Your task to perform on an android device: toggle sleep mode Image 0: 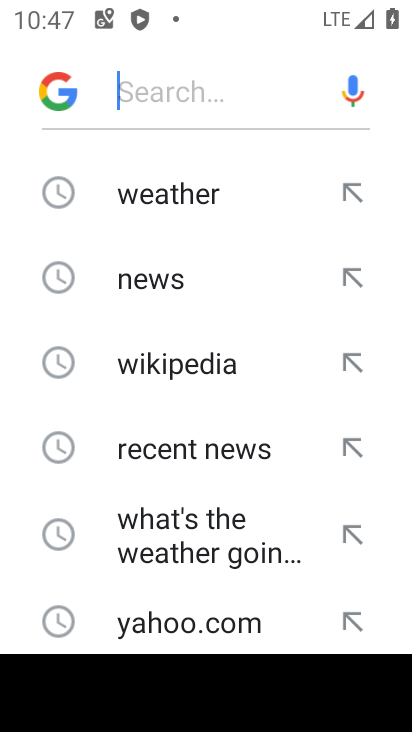
Step 0: press home button
Your task to perform on an android device: toggle sleep mode Image 1: 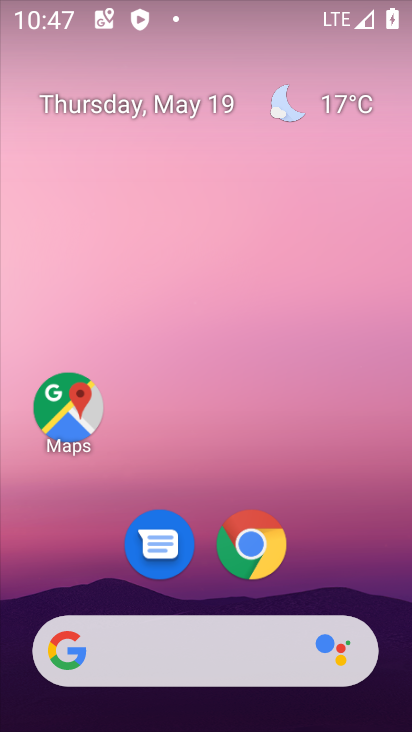
Step 1: drag from (133, 712) to (255, 109)
Your task to perform on an android device: toggle sleep mode Image 2: 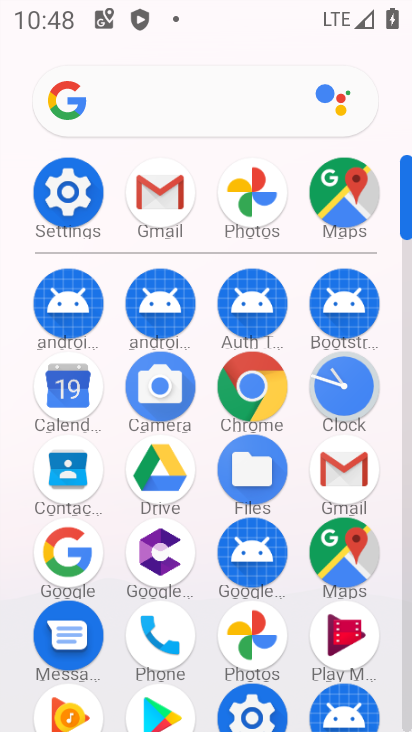
Step 2: click (83, 179)
Your task to perform on an android device: toggle sleep mode Image 3: 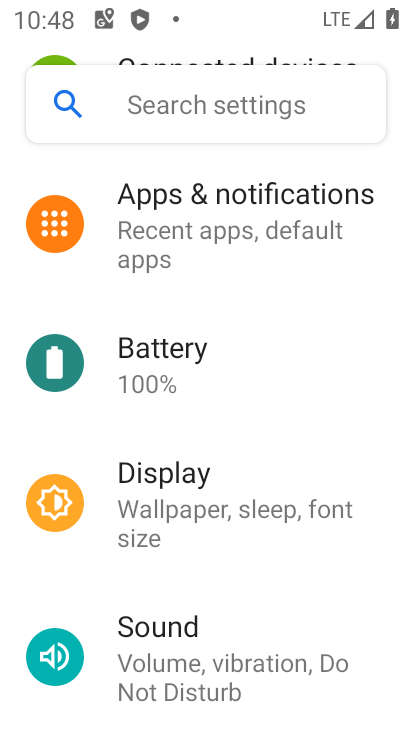
Step 3: click (195, 495)
Your task to perform on an android device: toggle sleep mode Image 4: 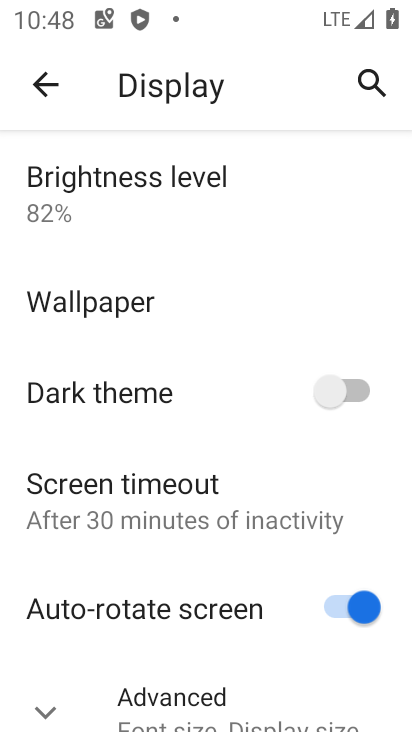
Step 4: task complete